Your task to perform on an android device: Open Google Image 0: 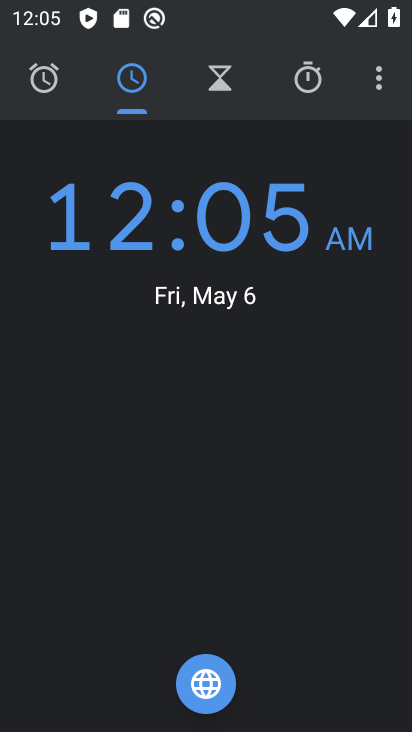
Step 0: press home button
Your task to perform on an android device: Open Google Image 1: 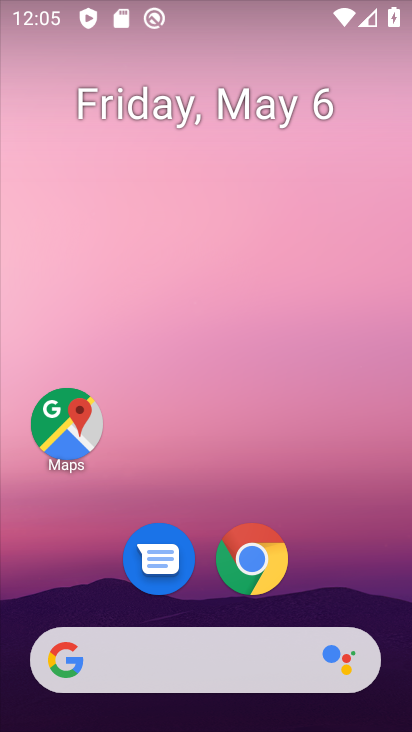
Step 1: drag from (334, 608) to (411, 103)
Your task to perform on an android device: Open Google Image 2: 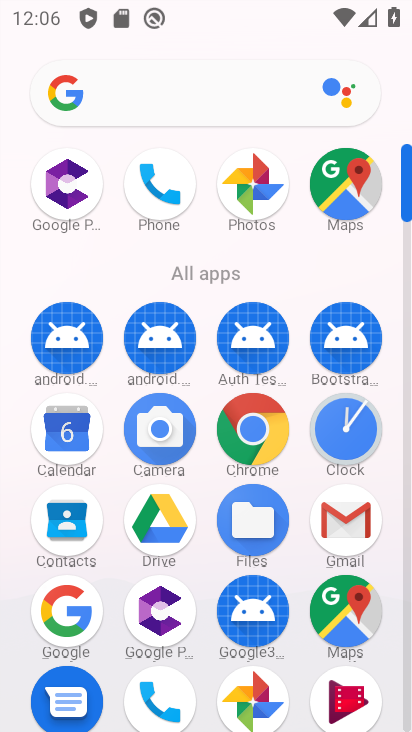
Step 2: click (56, 618)
Your task to perform on an android device: Open Google Image 3: 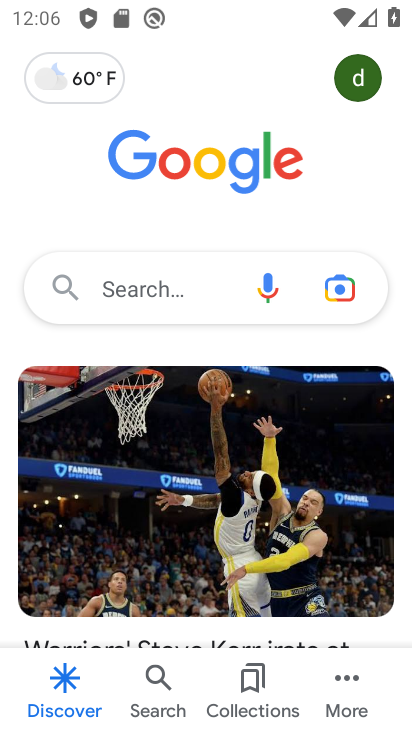
Step 3: task complete